Your task to perform on an android device: open chrome privacy settings Image 0: 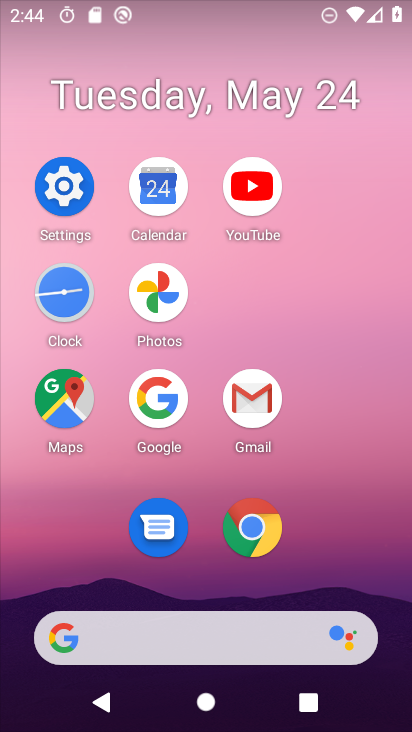
Step 0: click (265, 538)
Your task to perform on an android device: open chrome privacy settings Image 1: 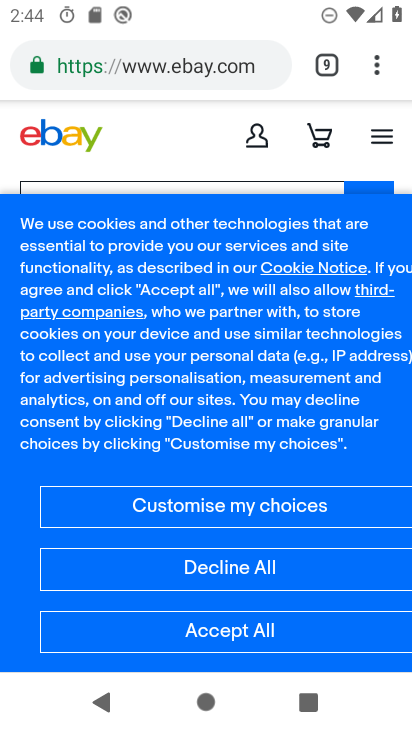
Step 1: click (375, 60)
Your task to perform on an android device: open chrome privacy settings Image 2: 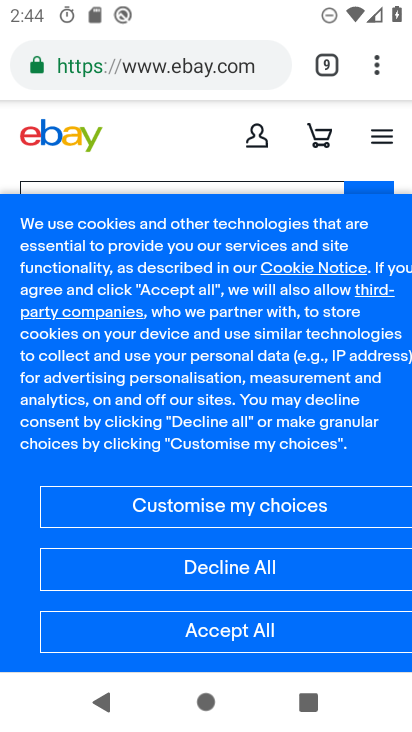
Step 2: click (384, 56)
Your task to perform on an android device: open chrome privacy settings Image 3: 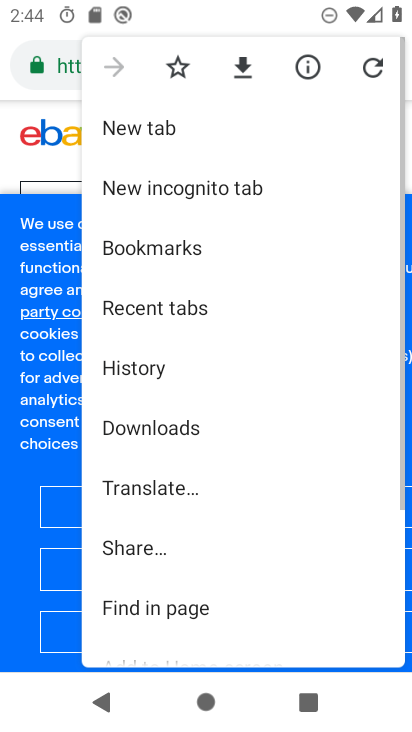
Step 3: drag from (218, 486) to (252, 216)
Your task to perform on an android device: open chrome privacy settings Image 4: 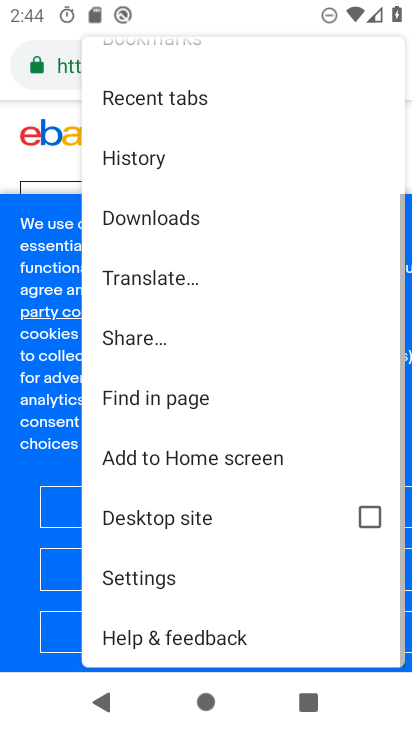
Step 4: click (177, 583)
Your task to perform on an android device: open chrome privacy settings Image 5: 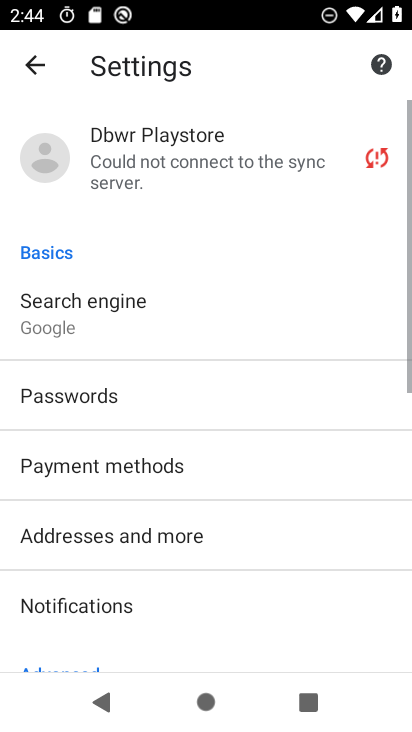
Step 5: drag from (146, 435) to (183, 213)
Your task to perform on an android device: open chrome privacy settings Image 6: 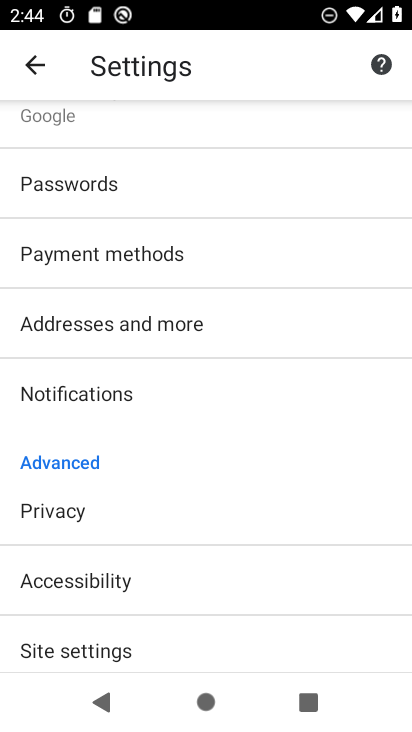
Step 6: click (139, 491)
Your task to perform on an android device: open chrome privacy settings Image 7: 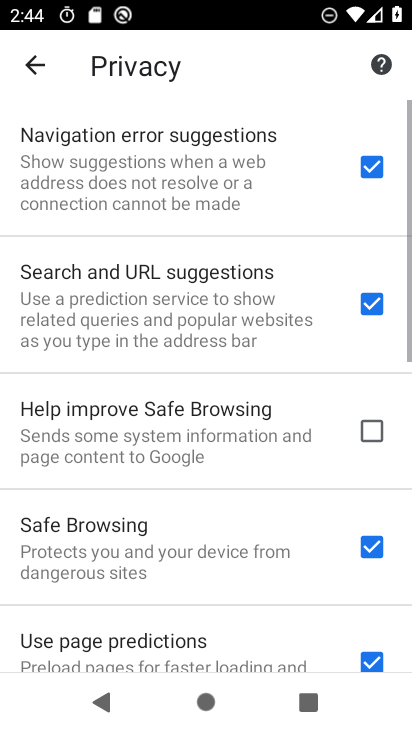
Step 7: task complete